Your task to perform on an android device: Open settings Image 0: 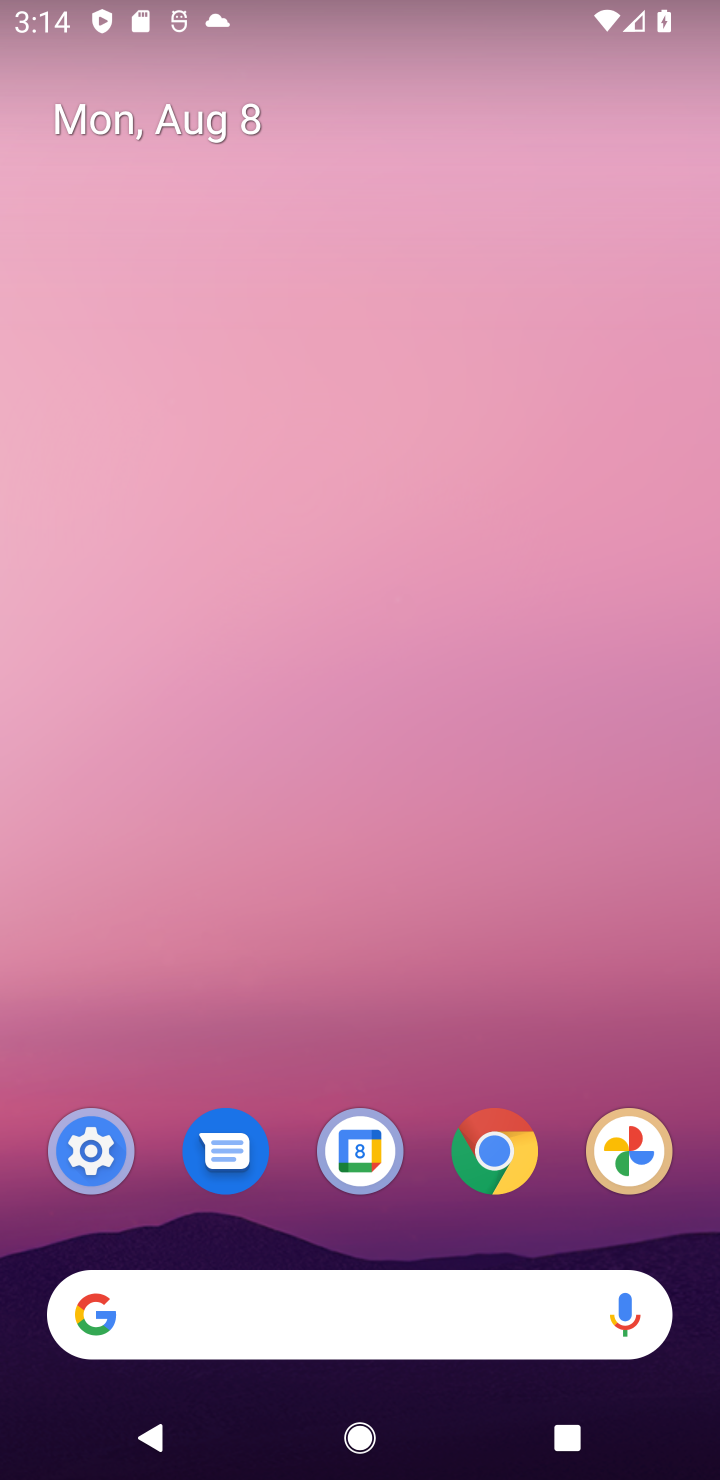
Step 0: click (74, 1185)
Your task to perform on an android device: Open settings Image 1: 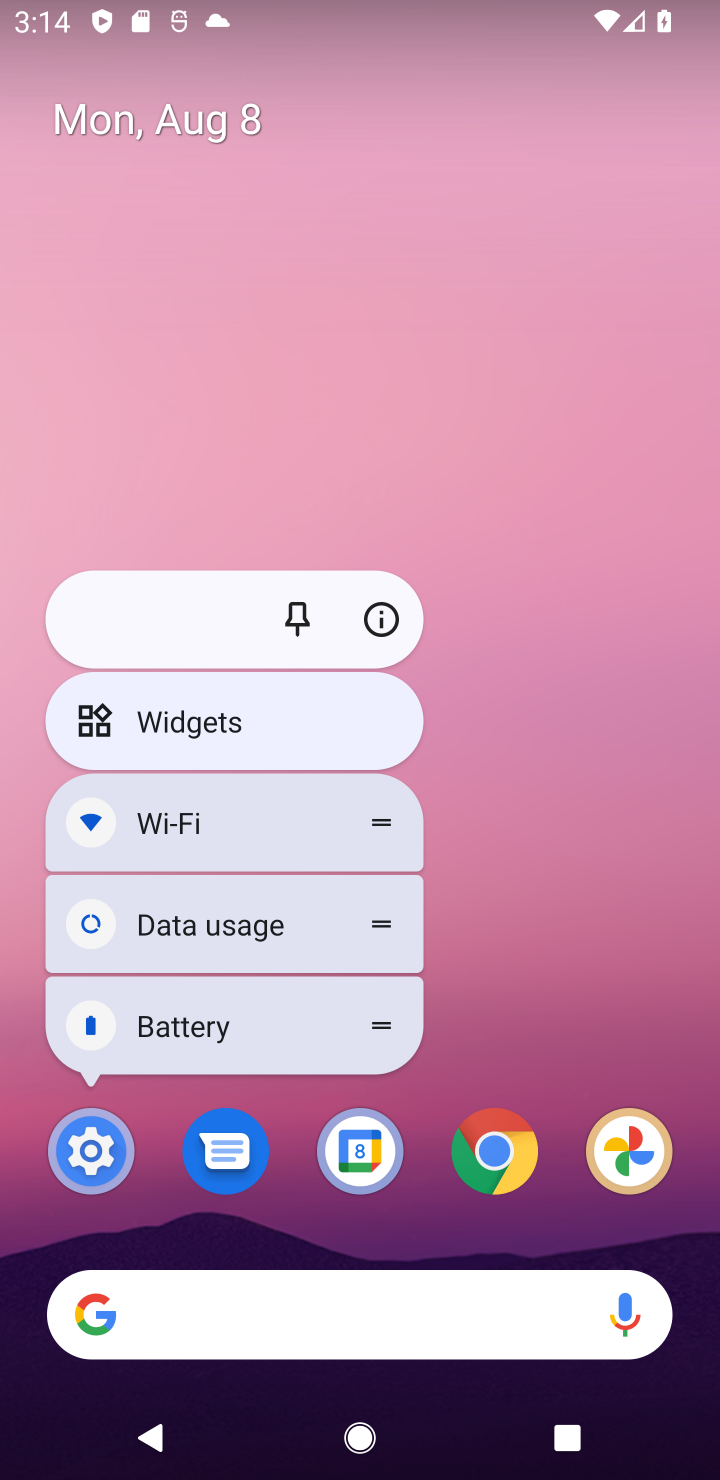
Step 1: click (74, 1185)
Your task to perform on an android device: Open settings Image 2: 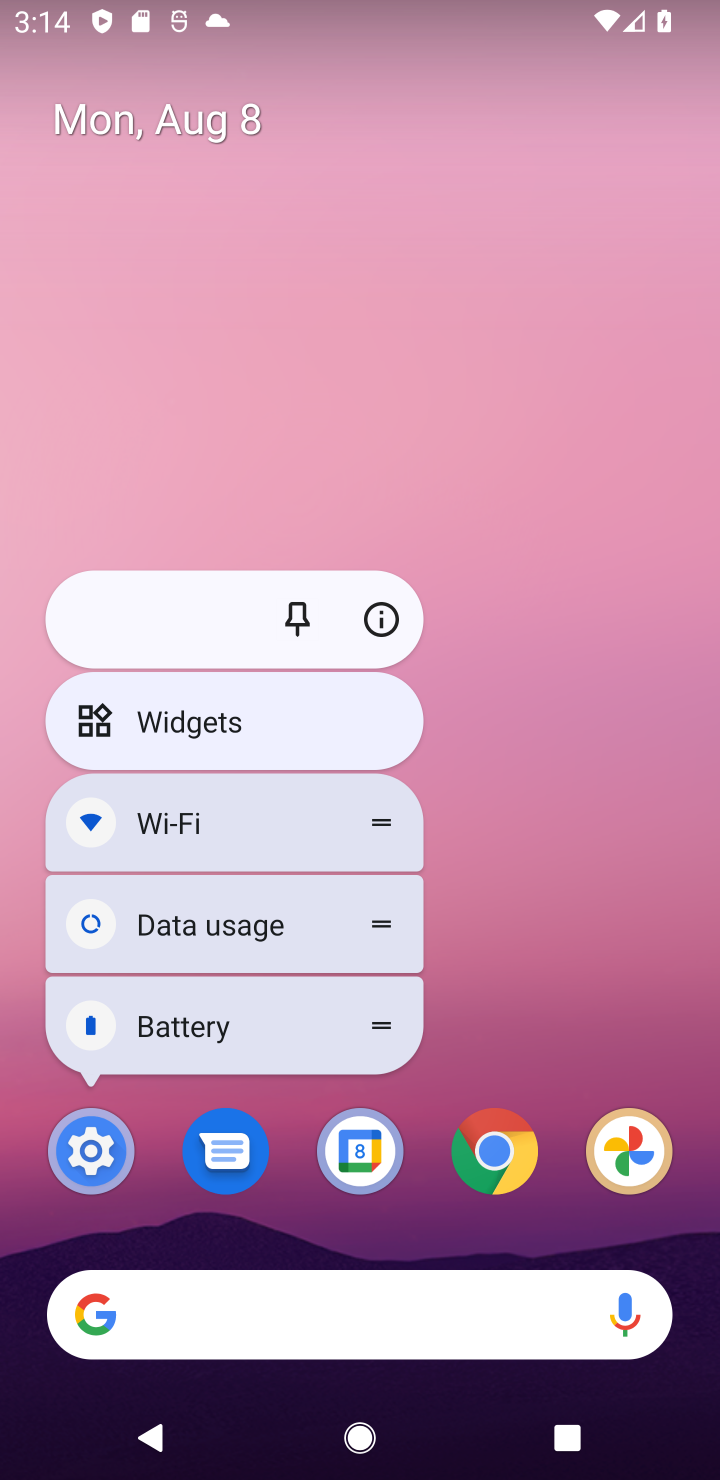
Step 2: click (107, 1147)
Your task to perform on an android device: Open settings Image 3: 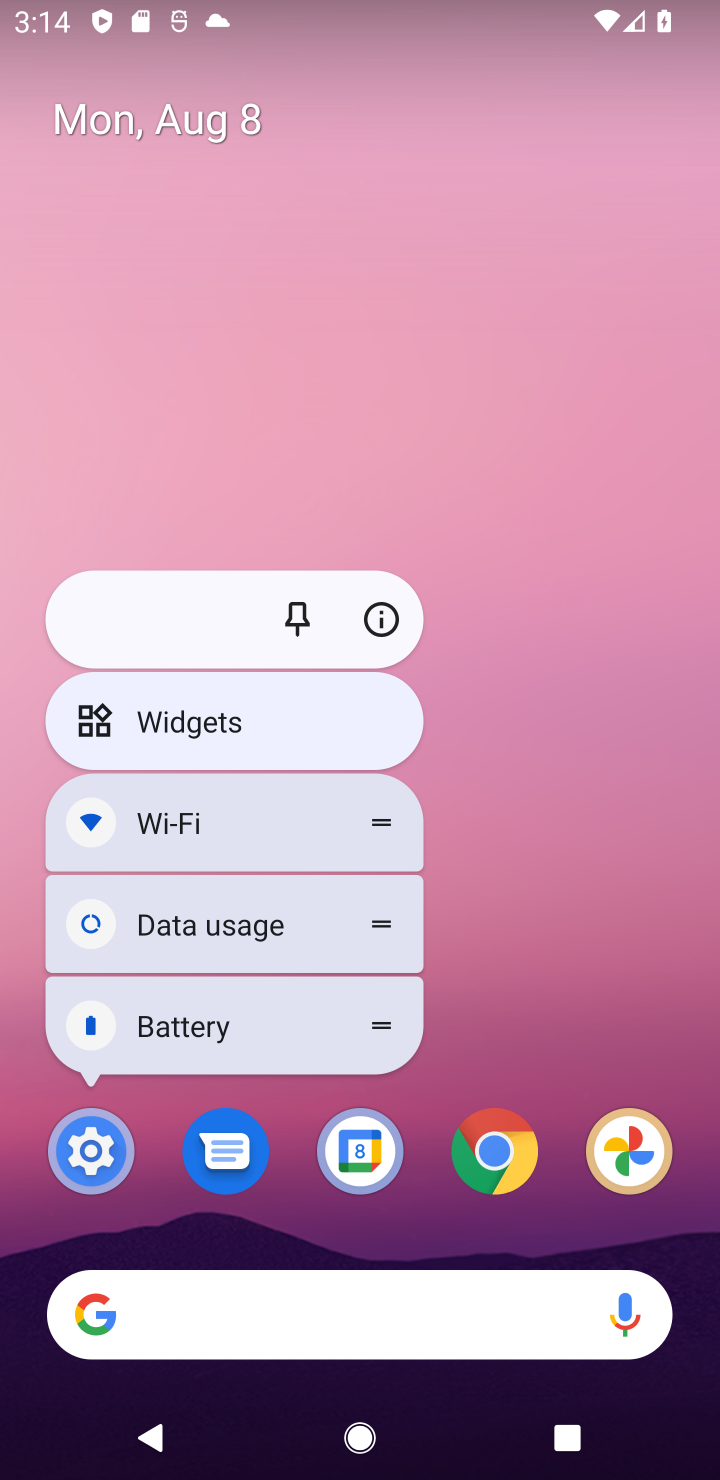
Step 3: click (107, 1147)
Your task to perform on an android device: Open settings Image 4: 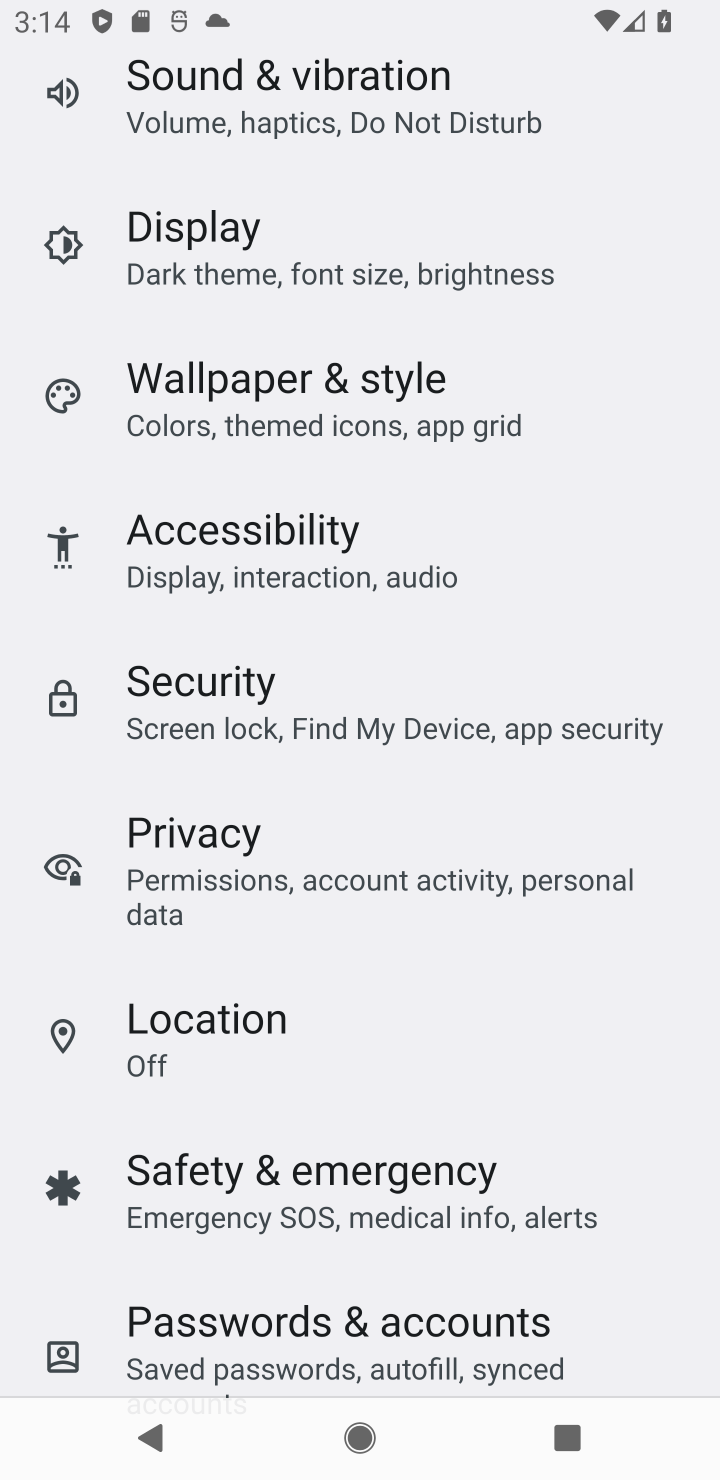
Step 4: task complete